Your task to perform on an android device: read, delete, or share a saved page in the chrome app Image 0: 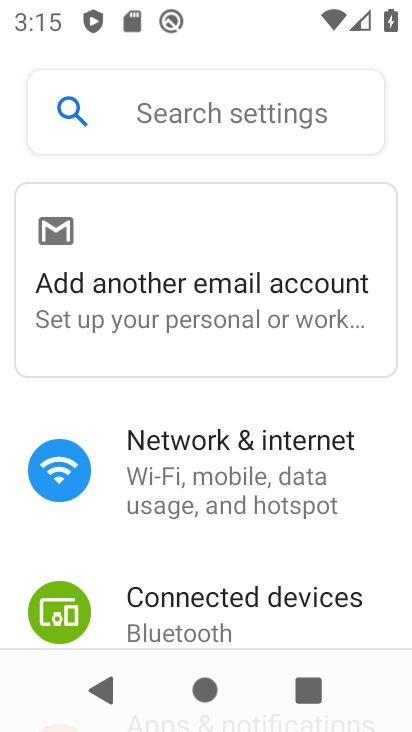
Step 0: press home button
Your task to perform on an android device: read, delete, or share a saved page in the chrome app Image 1: 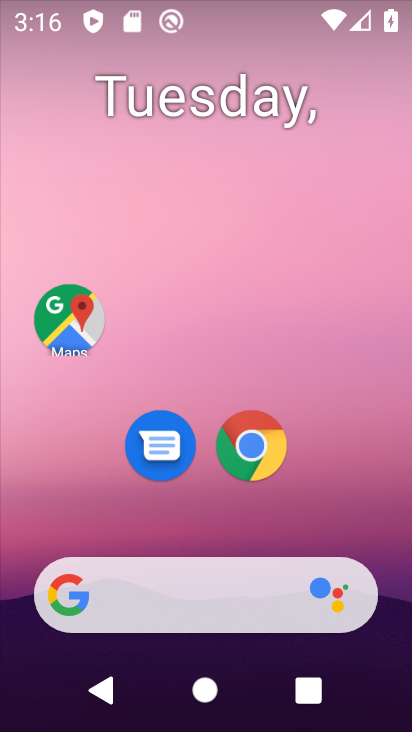
Step 1: click (258, 428)
Your task to perform on an android device: read, delete, or share a saved page in the chrome app Image 2: 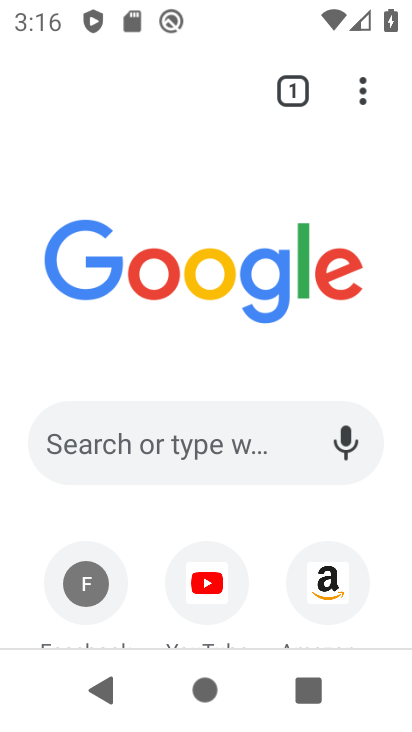
Step 2: drag from (366, 97) to (96, 299)
Your task to perform on an android device: read, delete, or share a saved page in the chrome app Image 3: 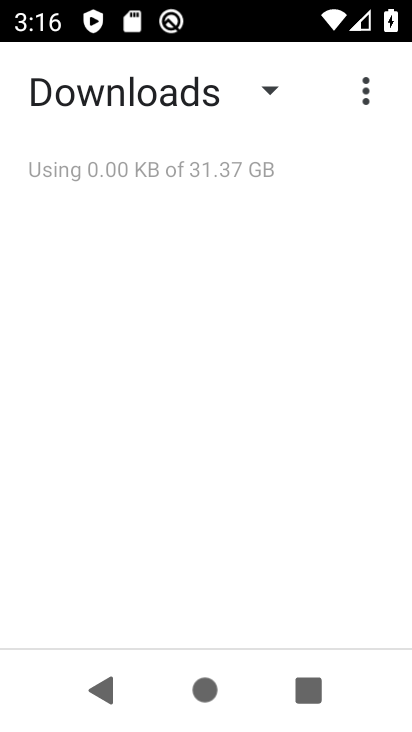
Step 3: click (277, 85)
Your task to perform on an android device: read, delete, or share a saved page in the chrome app Image 4: 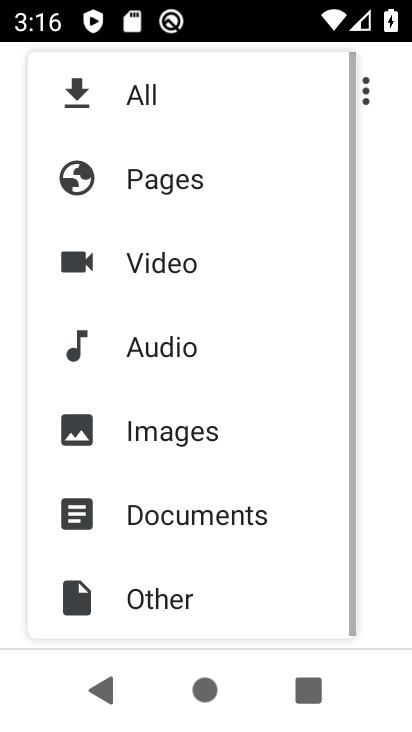
Step 4: click (185, 180)
Your task to perform on an android device: read, delete, or share a saved page in the chrome app Image 5: 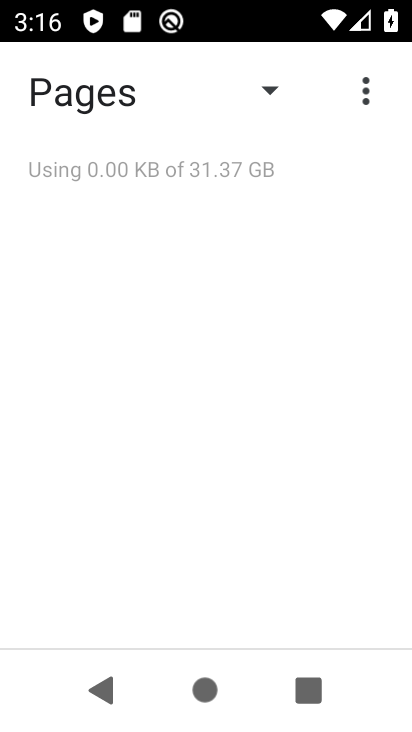
Step 5: task complete